Your task to perform on an android device: check battery use Image 0: 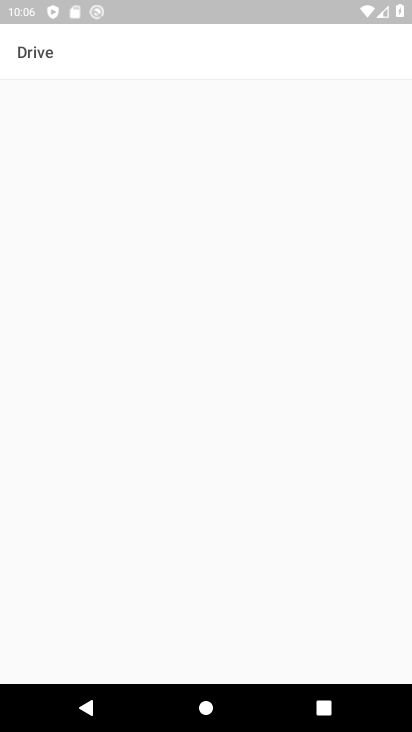
Step 0: press home button
Your task to perform on an android device: check battery use Image 1: 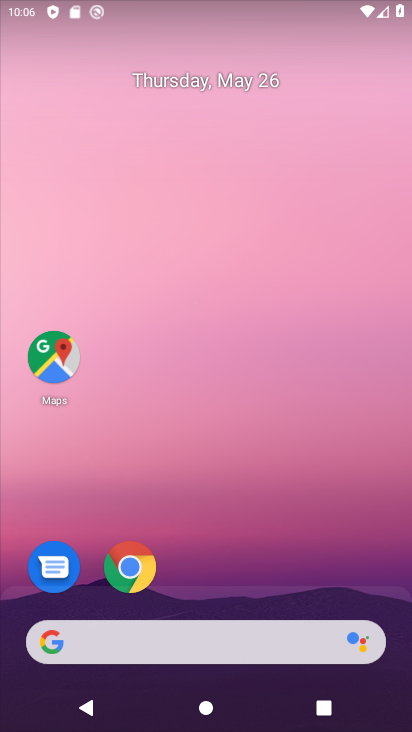
Step 1: drag from (245, 594) to (257, 10)
Your task to perform on an android device: check battery use Image 2: 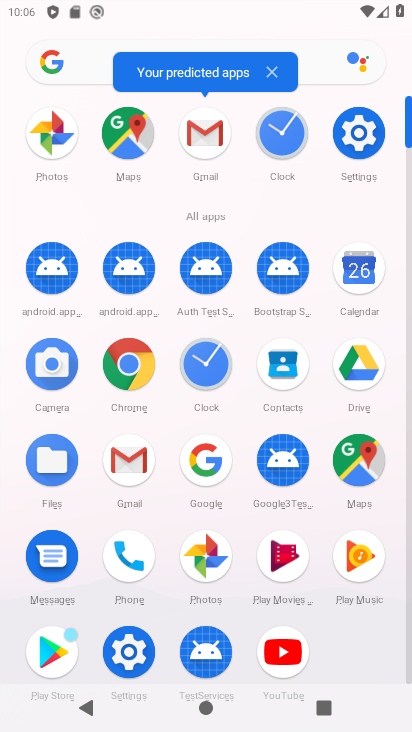
Step 2: click (358, 145)
Your task to perform on an android device: check battery use Image 3: 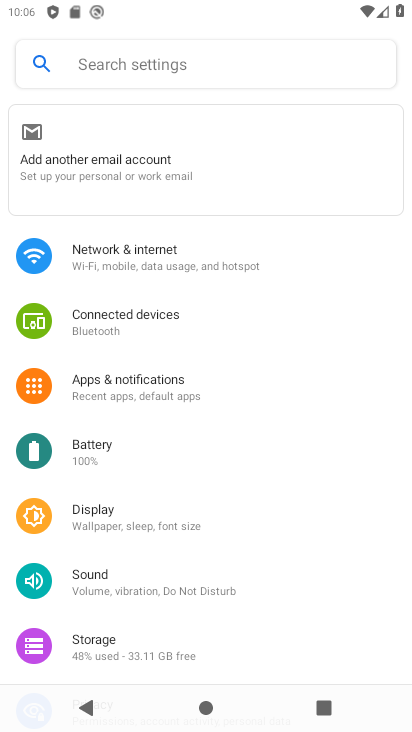
Step 3: click (125, 461)
Your task to perform on an android device: check battery use Image 4: 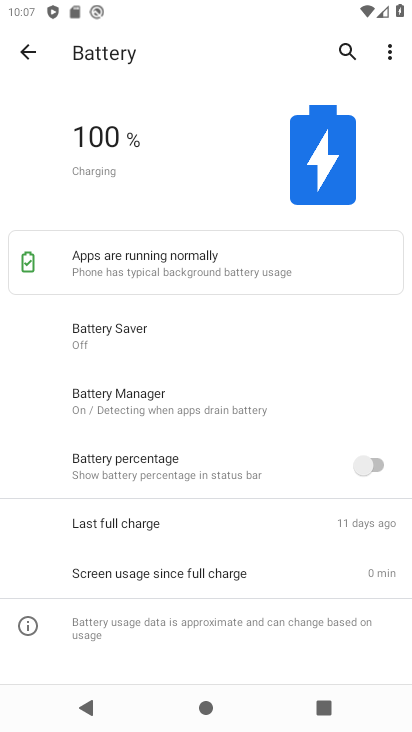
Step 4: task complete